Your task to perform on an android device: turn off sleep mode Image 0: 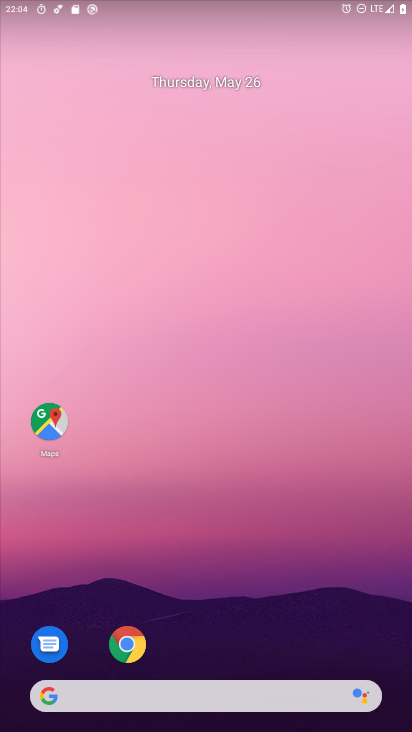
Step 0: drag from (189, 650) to (218, 77)
Your task to perform on an android device: turn off sleep mode Image 1: 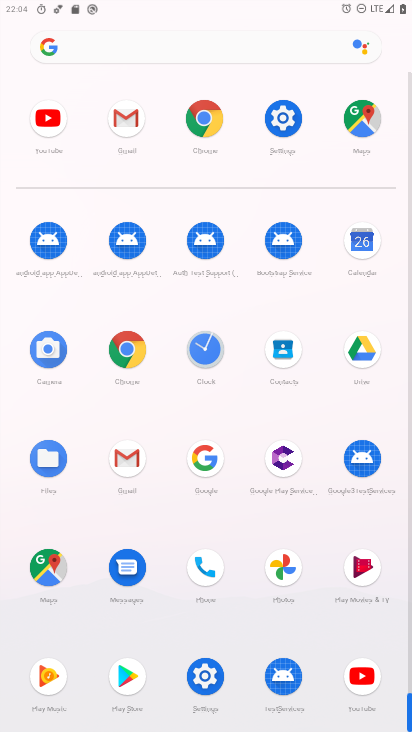
Step 1: click (282, 121)
Your task to perform on an android device: turn off sleep mode Image 2: 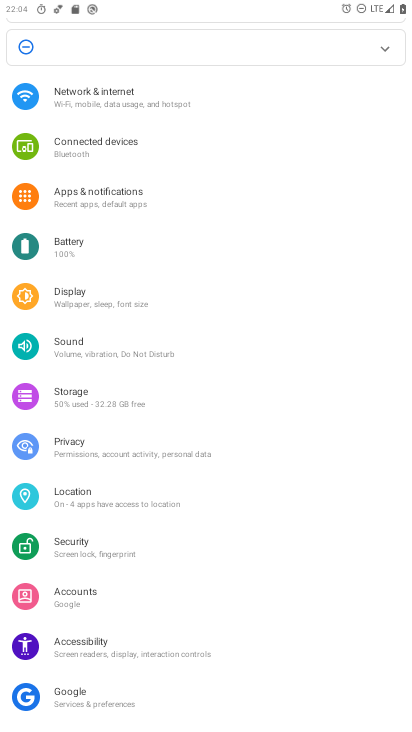
Step 2: click (88, 303)
Your task to perform on an android device: turn off sleep mode Image 3: 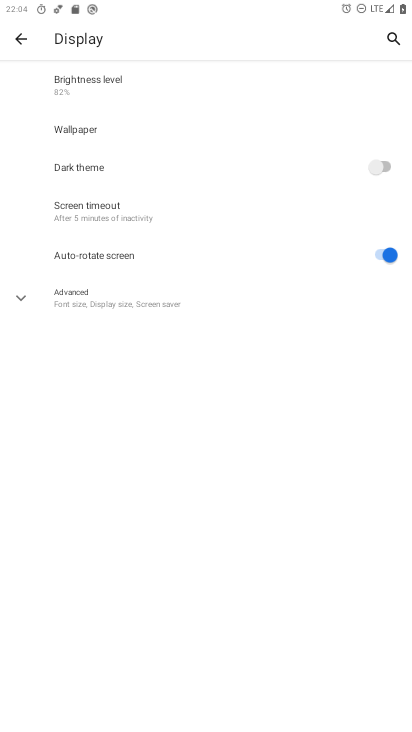
Step 3: click (104, 213)
Your task to perform on an android device: turn off sleep mode Image 4: 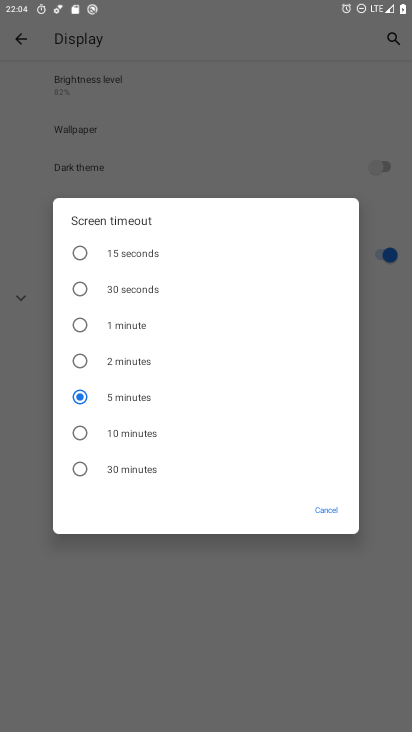
Step 4: task complete